Your task to perform on an android device: set the stopwatch Image 0: 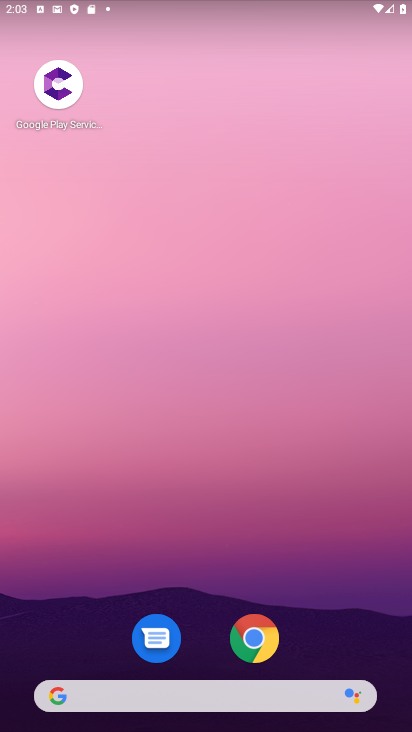
Step 0: drag from (244, 581) to (355, 10)
Your task to perform on an android device: set the stopwatch Image 1: 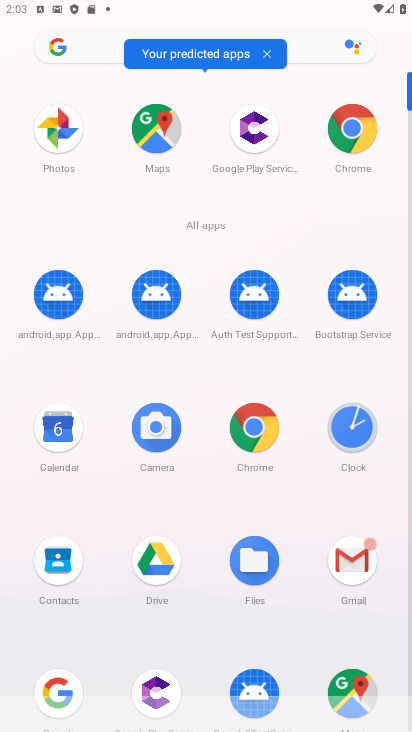
Step 1: click (352, 435)
Your task to perform on an android device: set the stopwatch Image 2: 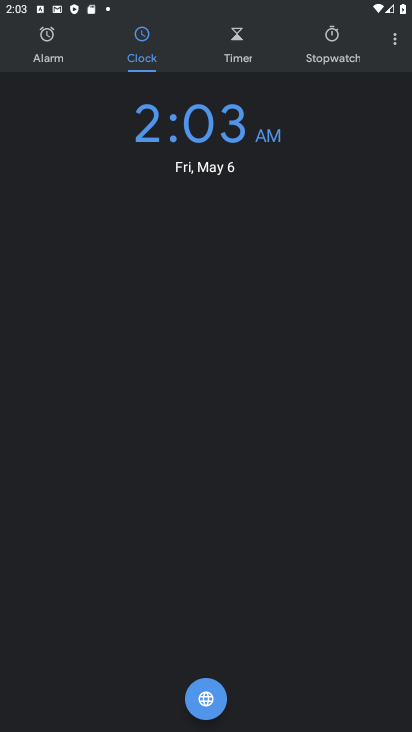
Step 2: click (332, 59)
Your task to perform on an android device: set the stopwatch Image 3: 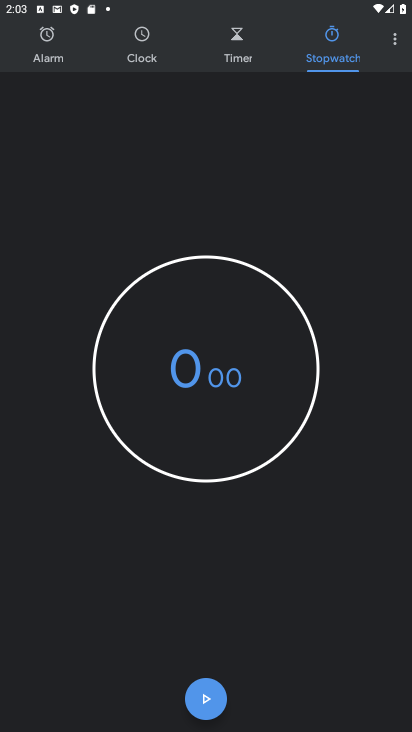
Step 3: task complete